Your task to perform on an android device: turn off wifi Image 0: 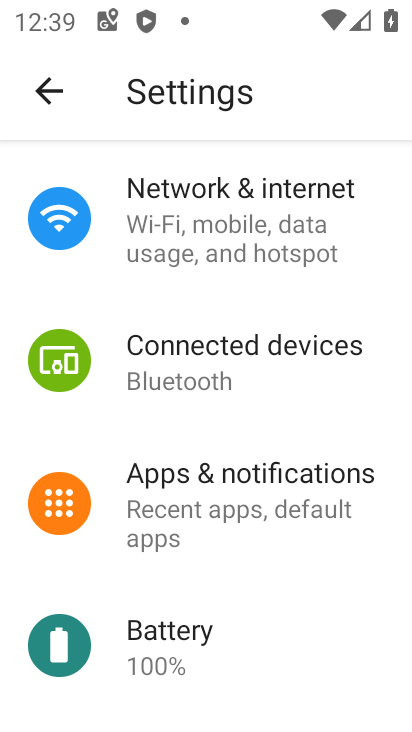
Step 0: click (223, 203)
Your task to perform on an android device: turn off wifi Image 1: 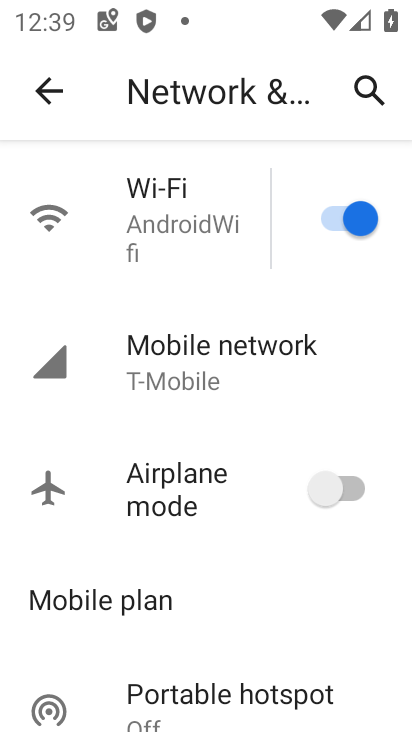
Step 1: click (329, 223)
Your task to perform on an android device: turn off wifi Image 2: 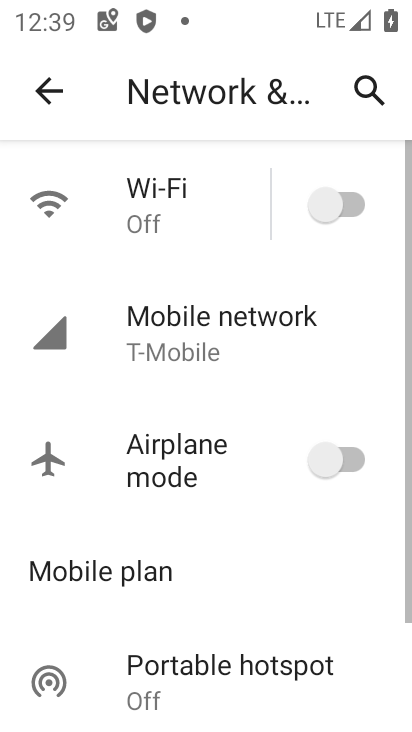
Step 2: task complete